Your task to perform on an android device: Open the calendar and show me this week's events? Image 0: 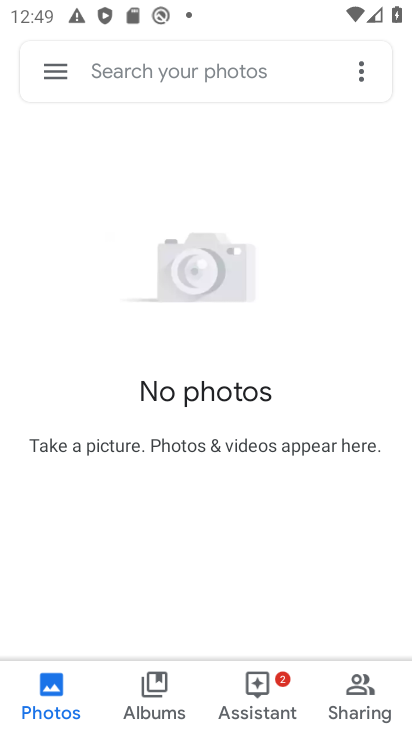
Step 0: press home button
Your task to perform on an android device: Open the calendar and show me this week's events? Image 1: 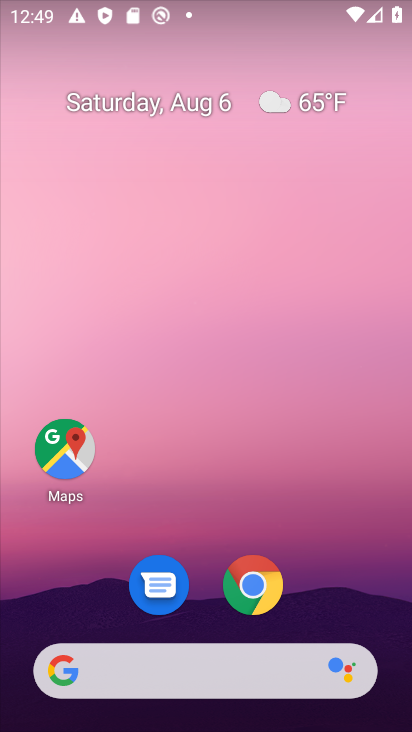
Step 1: drag from (218, 499) to (220, 0)
Your task to perform on an android device: Open the calendar and show me this week's events? Image 2: 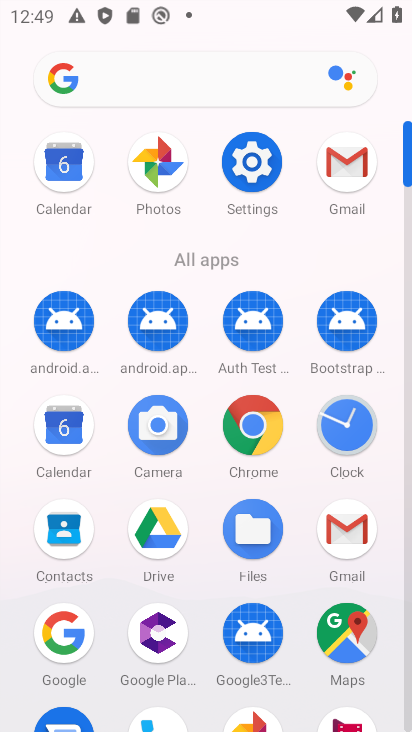
Step 2: click (70, 163)
Your task to perform on an android device: Open the calendar and show me this week's events? Image 3: 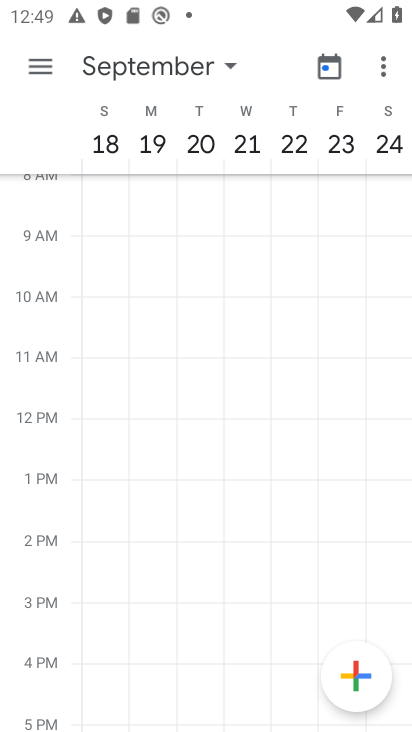
Step 3: click (47, 63)
Your task to perform on an android device: Open the calendar and show me this week's events? Image 4: 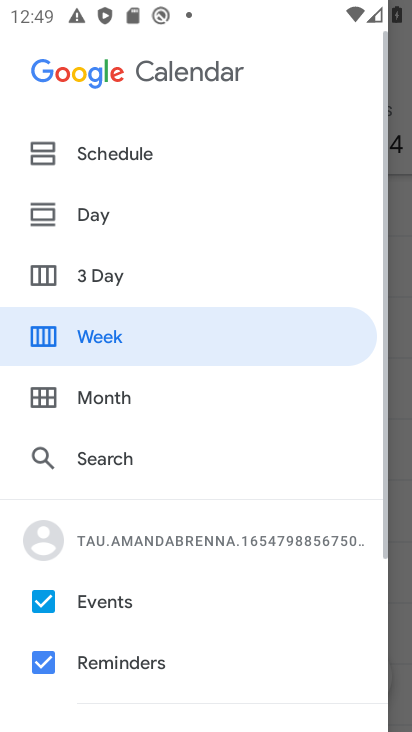
Step 4: click (50, 394)
Your task to perform on an android device: Open the calendar and show me this week's events? Image 5: 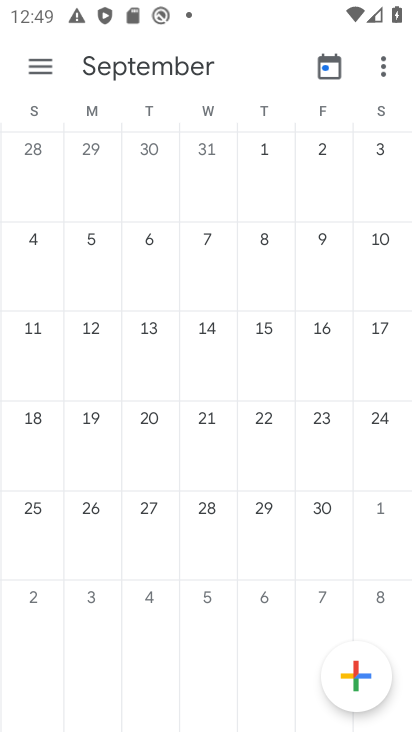
Step 5: drag from (112, 285) to (402, 327)
Your task to perform on an android device: Open the calendar and show me this week's events? Image 6: 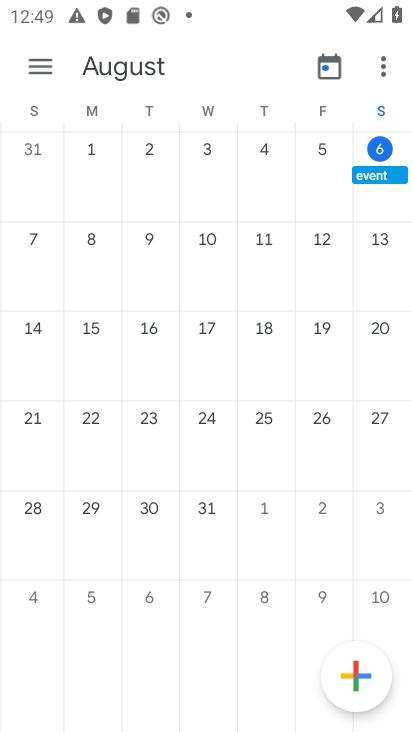
Step 6: click (39, 156)
Your task to perform on an android device: Open the calendar and show me this week's events? Image 7: 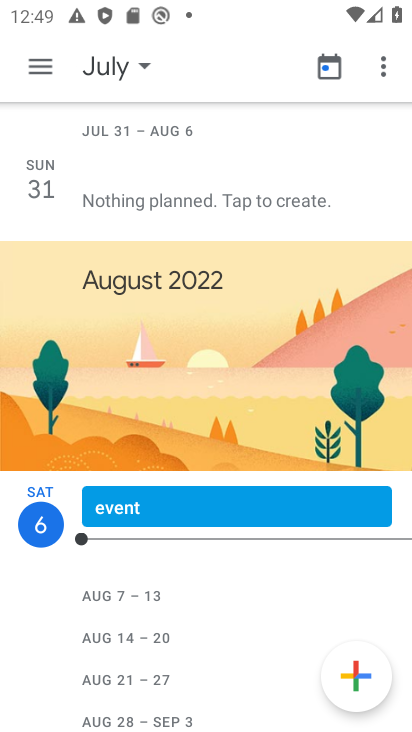
Step 7: click (43, 65)
Your task to perform on an android device: Open the calendar and show me this week's events? Image 8: 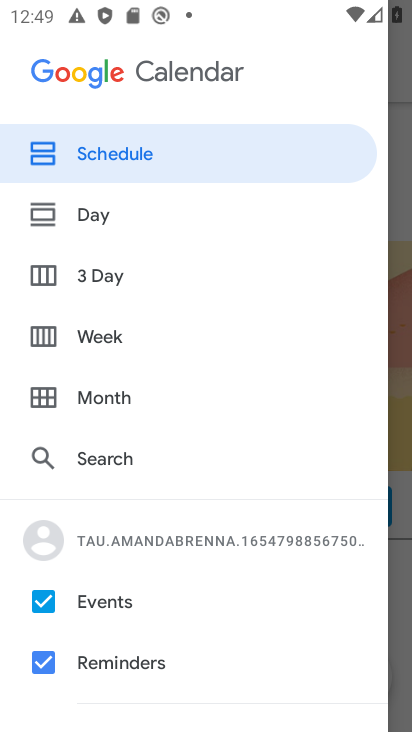
Step 8: click (39, 328)
Your task to perform on an android device: Open the calendar and show me this week's events? Image 9: 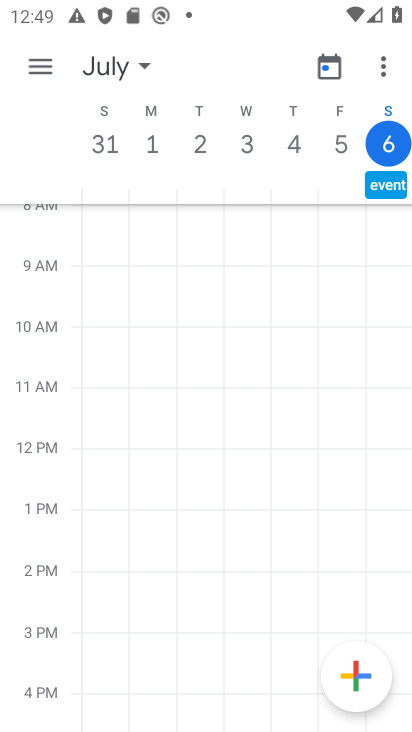
Step 9: task complete